Your task to perform on an android device: clear all cookies in the chrome app Image 0: 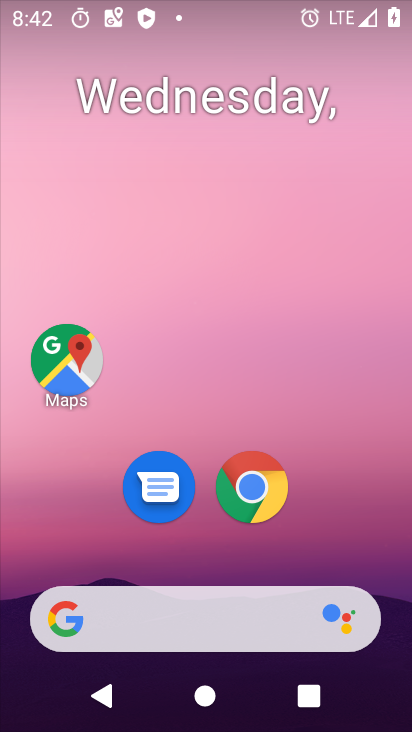
Step 0: click (254, 503)
Your task to perform on an android device: clear all cookies in the chrome app Image 1: 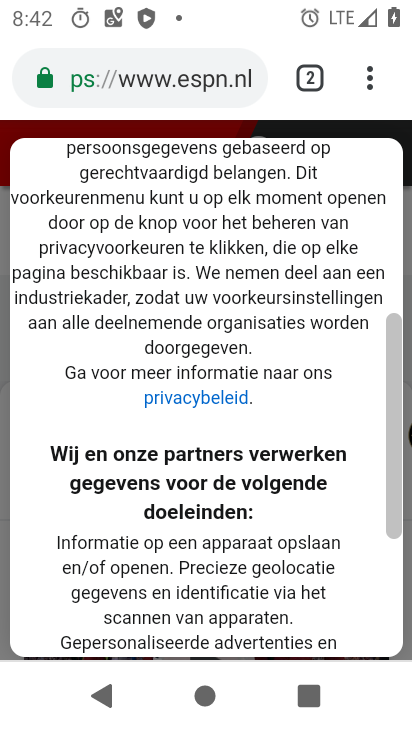
Step 1: click (366, 81)
Your task to perform on an android device: clear all cookies in the chrome app Image 2: 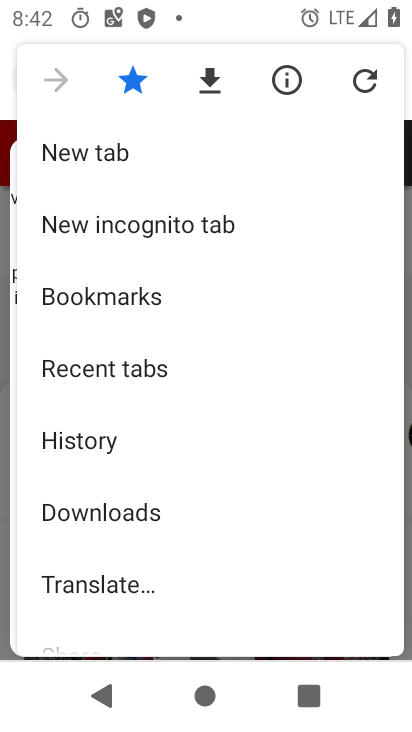
Step 2: drag from (171, 452) to (162, 136)
Your task to perform on an android device: clear all cookies in the chrome app Image 3: 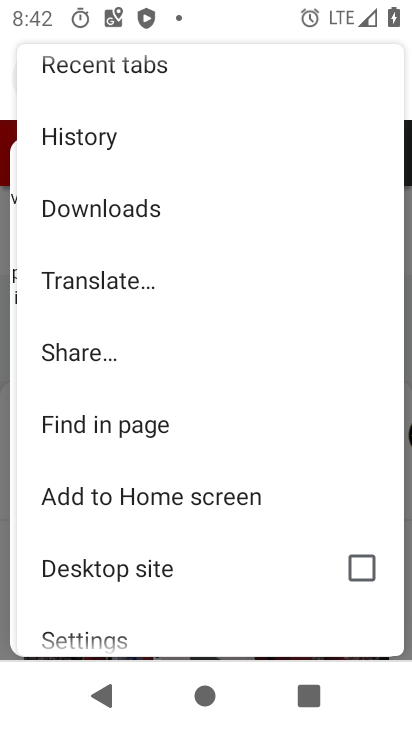
Step 3: drag from (152, 527) to (150, 170)
Your task to perform on an android device: clear all cookies in the chrome app Image 4: 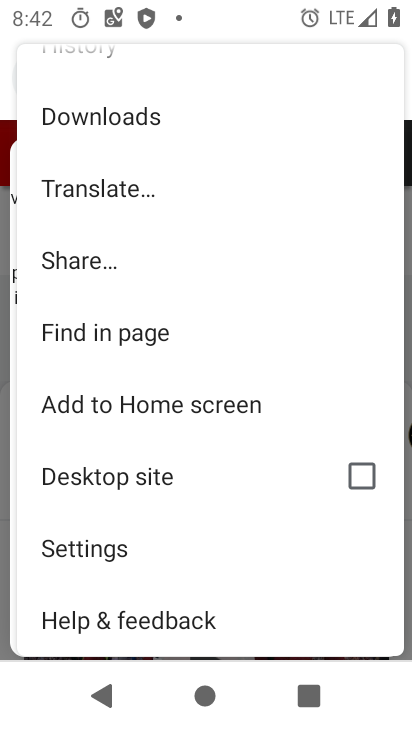
Step 4: click (89, 555)
Your task to perform on an android device: clear all cookies in the chrome app Image 5: 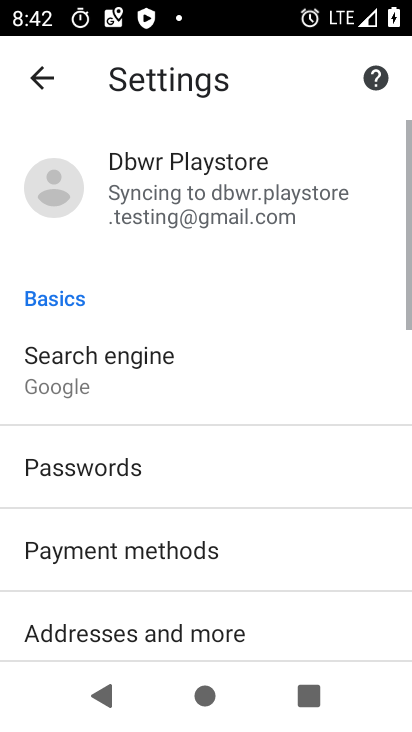
Step 5: drag from (203, 577) to (199, 223)
Your task to perform on an android device: clear all cookies in the chrome app Image 6: 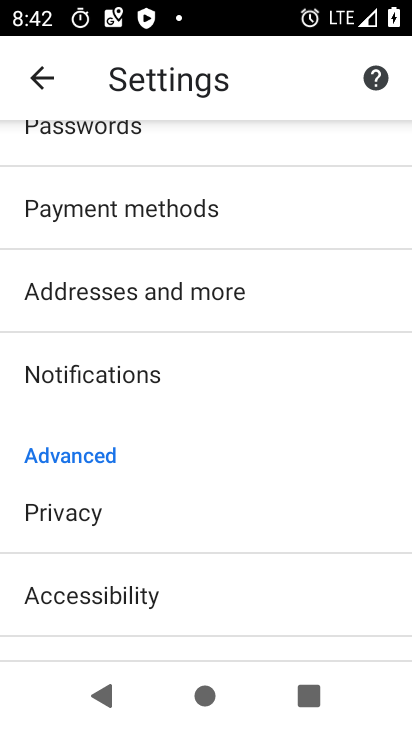
Step 6: click (77, 520)
Your task to perform on an android device: clear all cookies in the chrome app Image 7: 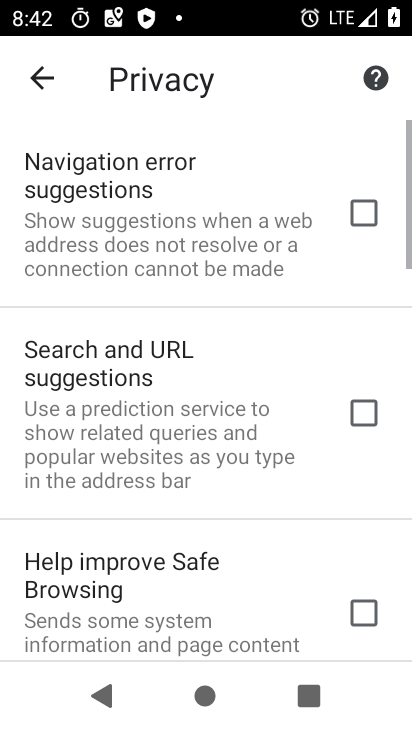
Step 7: drag from (160, 619) to (169, 173)
Your task to perform on an android device: clear all cookies in the chrome app Image 8: 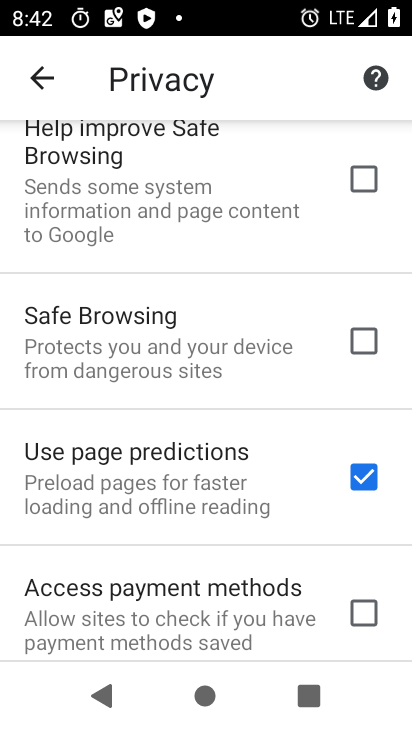
Step 8: drag from (113, 565) to (152, 118)
Your task to perform on an android device: clear all cookies in the chrome app Image 9: 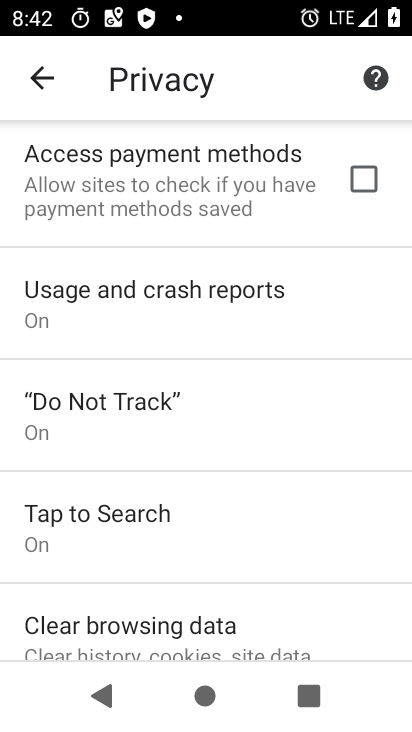
Step 9: drag from (121, 519) to (132, 183)
Your task to perform on an android device: clear all cookies in the chrome app Image 10: 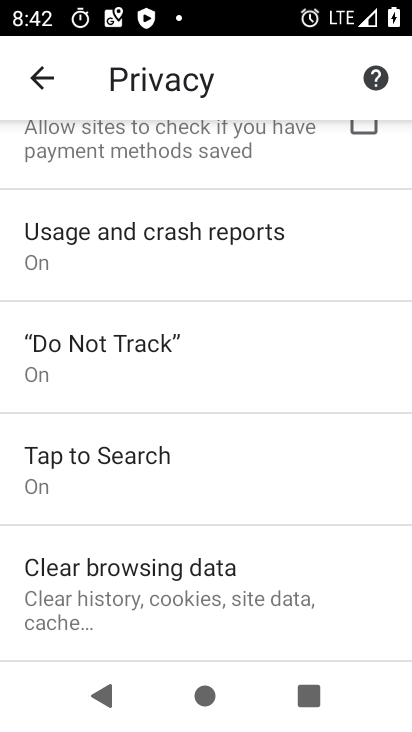
Step 10: click (116, 581)
Your task to perform on an android device: clear all cookies in the chrome app Image 11: 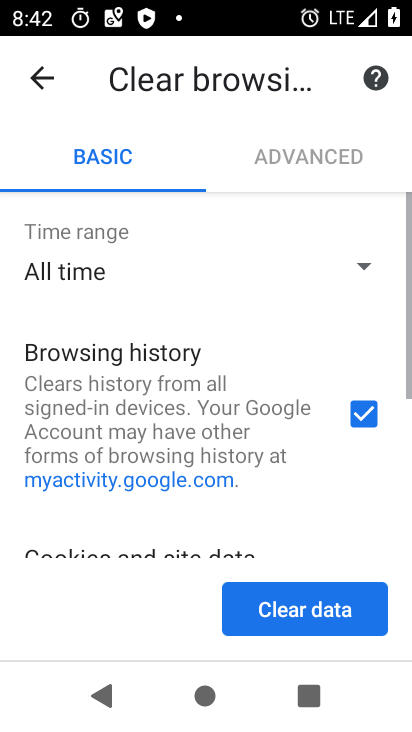
Step 11: click (351, 420)
Your task to perform on an android device: clear all cookies in the chrome app Image 12: 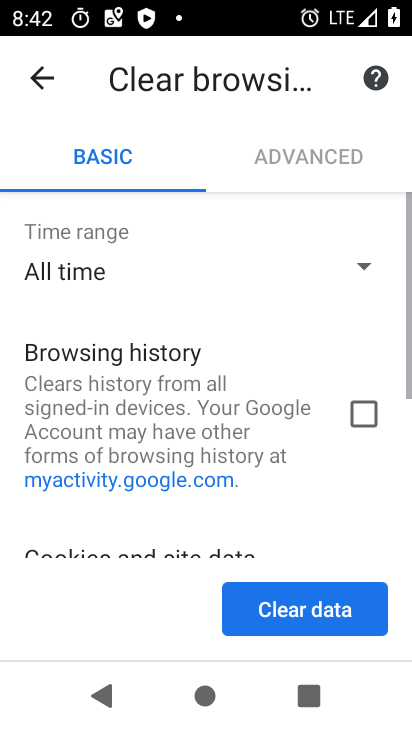
Step 12: drag from (190, 472) to (206, 190)
Your task to perform on an android device: clear all cookies in the chrome app Image 13: 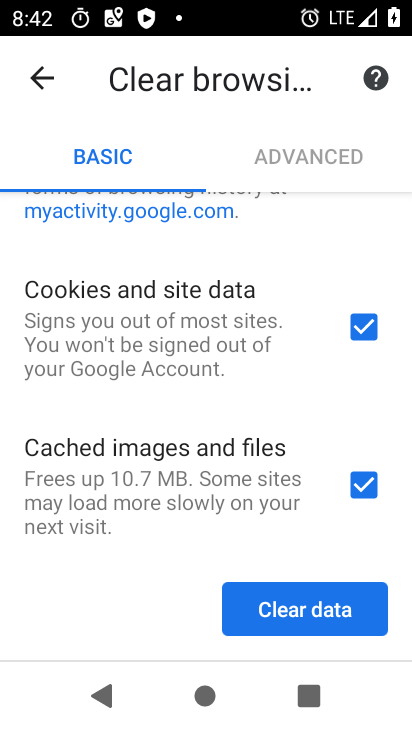
Step 13: drag from (166, 432) to (166, 319)
Your task to perform on an android device: clear all cookies in the chrome app Image 14: 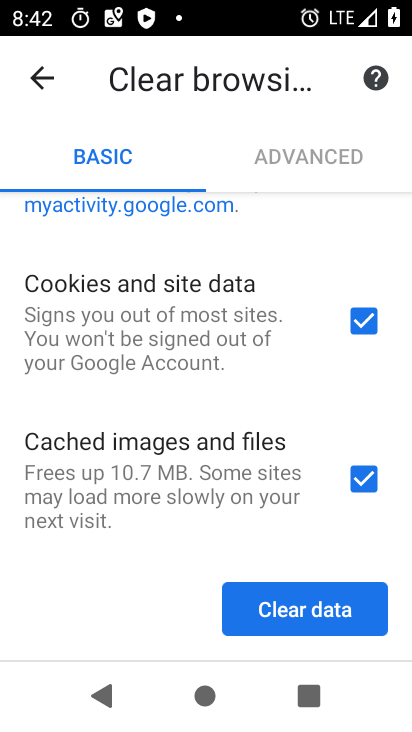
Step 14: click (367, 477)
Your task to perform on an android device: clear all cookies in the chrome app Image 15: 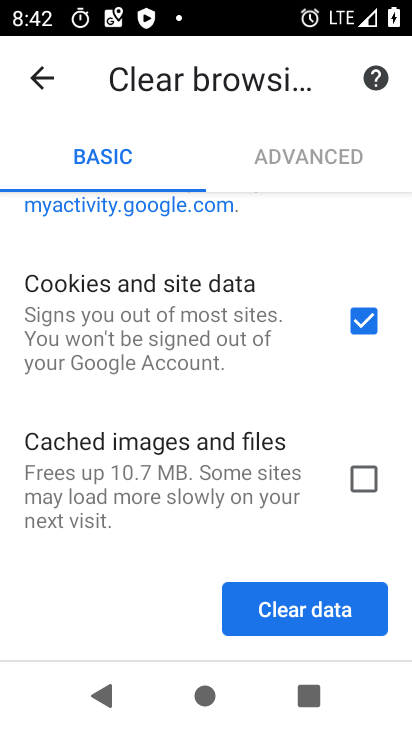
Step 15: click (294, 617)
Your task to perform on an android device: clear all cookies in the chrome app Image 16: 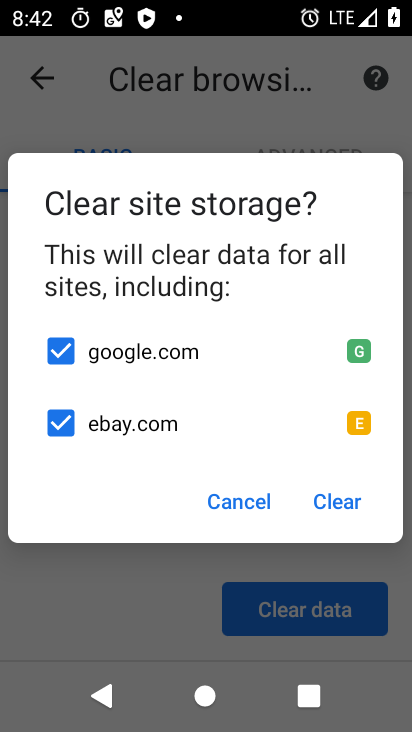
Step 16: click (352, 502)
Your task to perform on an android device: clear all cookies in the chrome app Image 17: 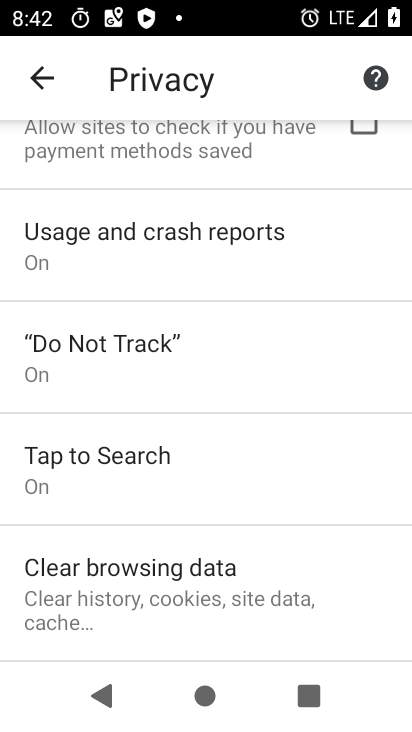
Step 17: task complete